Your task to perform on an android device: change timer sound Image 0: 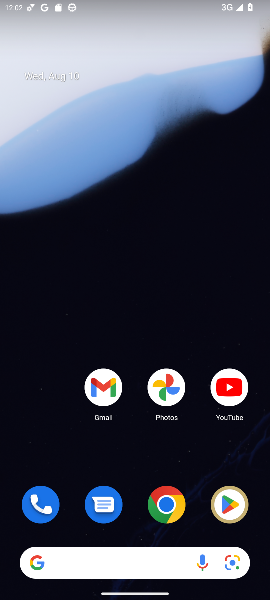
Step 0: press home button
Your task to perform on an android device: change timer sound Image 1: 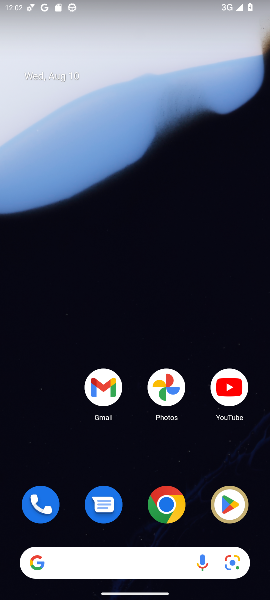
Step 1: drag from (143, 529) to (167, 146)
Your task to perform on an android device: change timer sound Image 2: 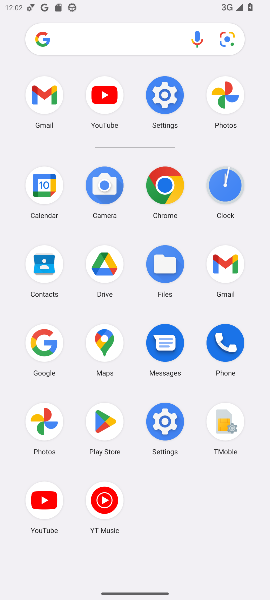
Step 2: click (223, 189)
Your task to perform on an android device: change timer sound Image 3: 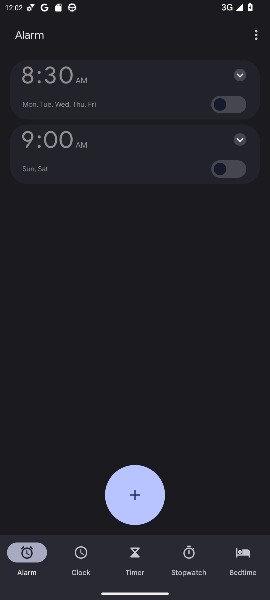
Step 3: click (261, 33)
Your task to perform on an android device: change timer sound Image 4: 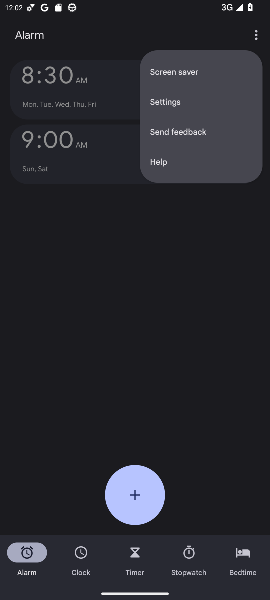
Step 4: click (155, 103)
Your task to perform on an android device: change timer sound Image 5: 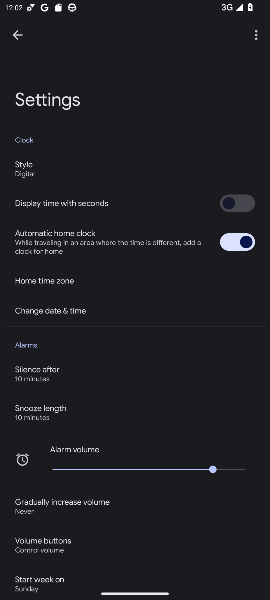
Step 5: drag from (195, 554) to (159, 209)
Your task to perform on an android device: change timer sound Image 6: 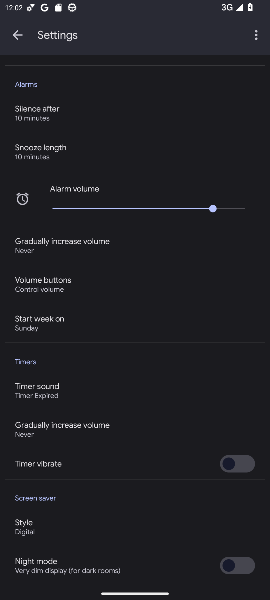
Step 6: click (36, 383)
Your task to perform on an android device: change timer sound Image 7: 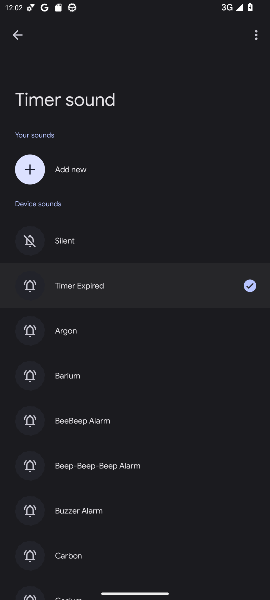
Step 7: click (70, 340)
Your task to perform on an android device: change timer sound Image 8: 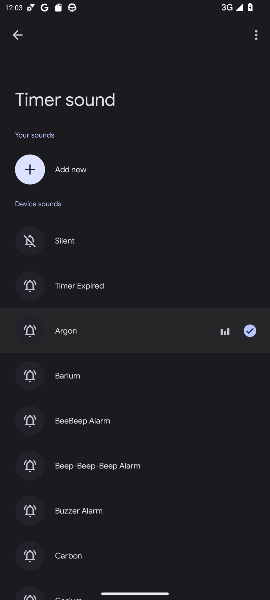
Step 8: task complete